Your task to perform on an android device: Open location settings Image 0: 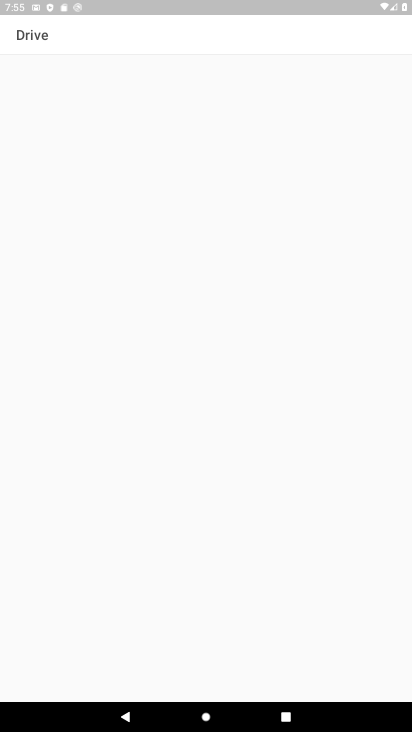
Step 0: press home button
Your task to perform on an android device: Open location settings Image 1: 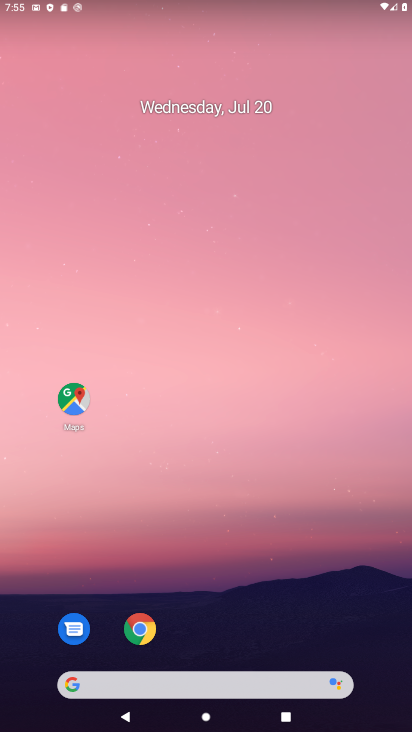
Step 1: drag from (250, 169) to (254, 116)
Your task to perform on an android device: Open location settings Image 2: 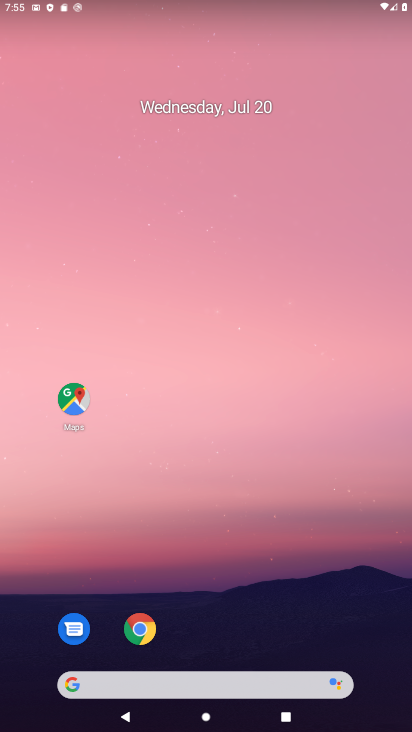
Step 2: drag from (190, 619) to (276, 139)
Your task to perform on an android device: Open location settings Image 3: 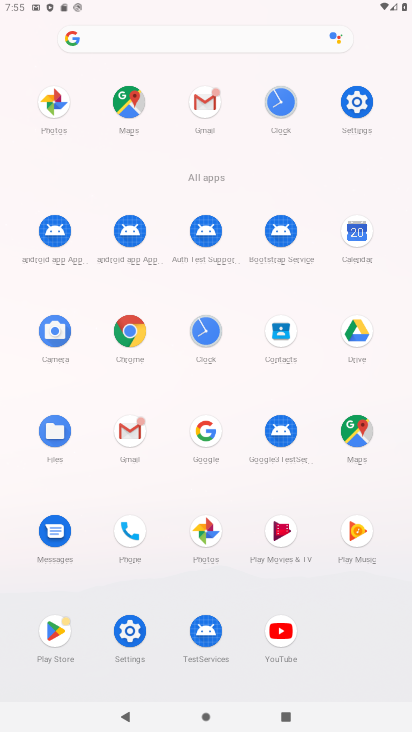
Step 3: click (348, 112)
Your task to perform on an android device: Open location settings Image 4: 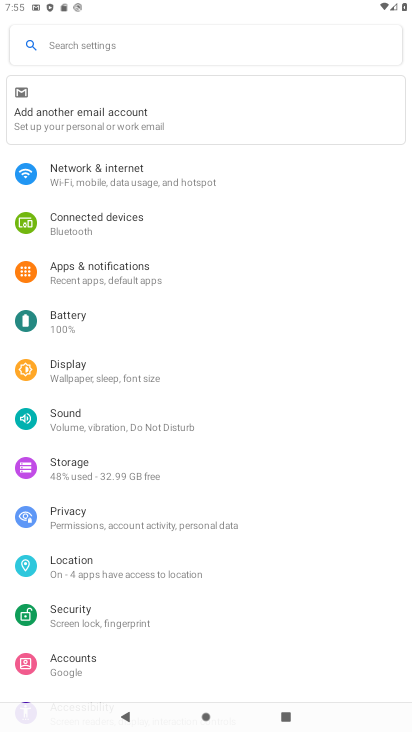
Step 4: click (117, 574)
Your task to perform on an android device: Open location settings Image 5: 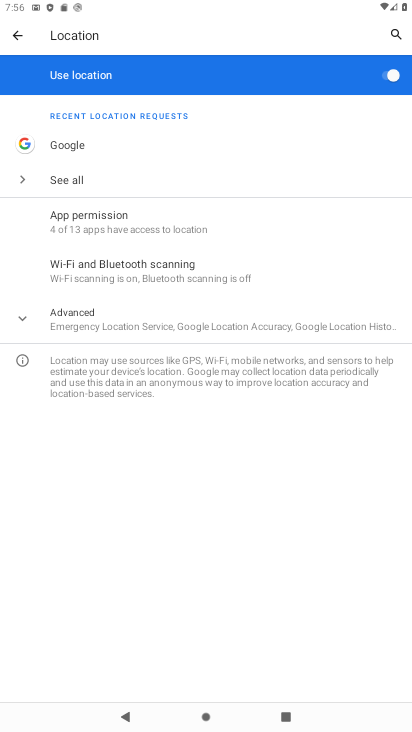
Step 5: task complete